Your task to perform on an android device: open app "ColorNote Notepad Notes" Image 0: 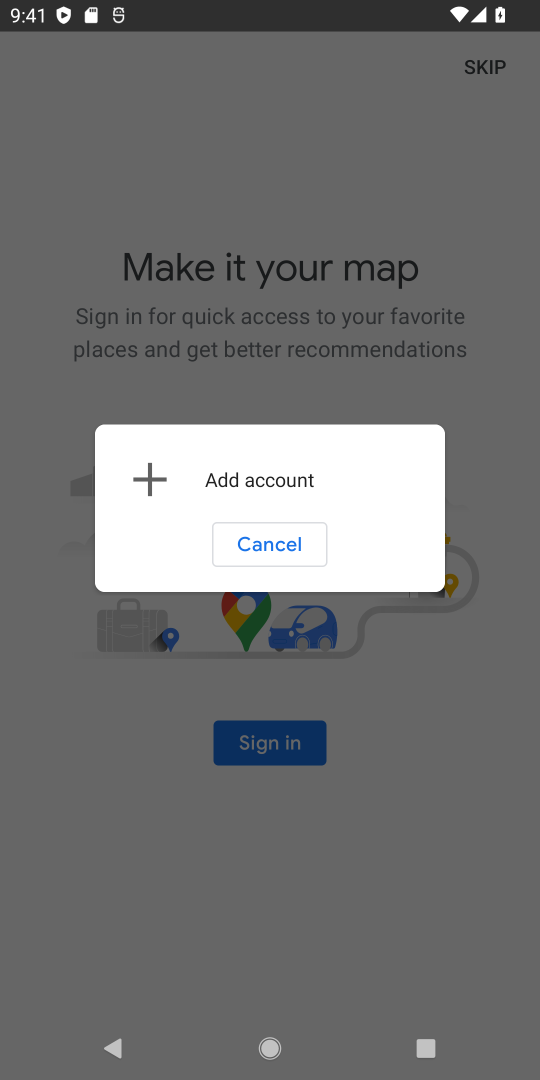
Step 0: press home button
Your task to perform on an android device: open app "ColorNote Notepad Notes" Image 1: 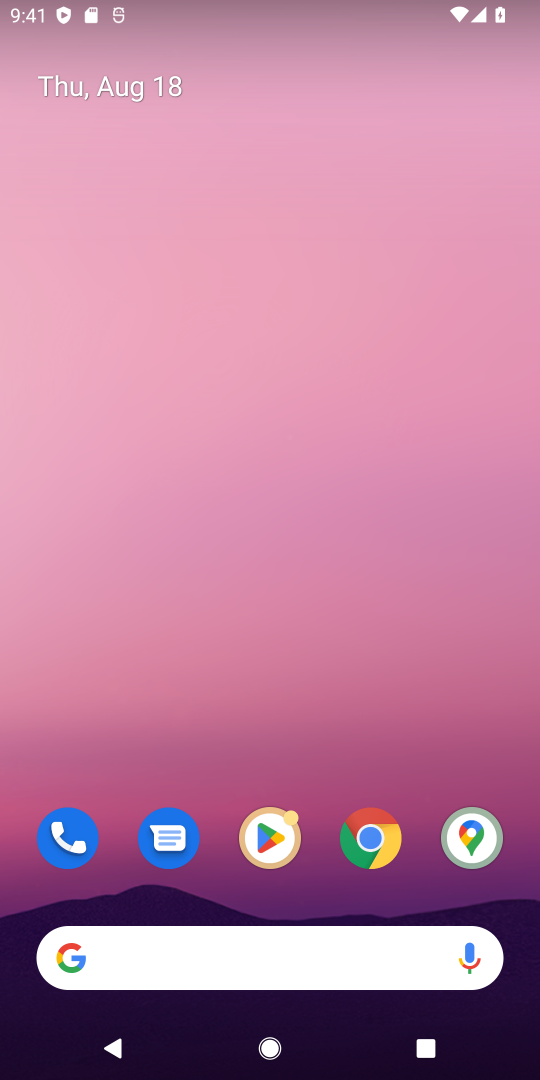
Step 1: task complete